Your task to perform on an android device: open the mobile data screen to see how much data has been used Image 0: 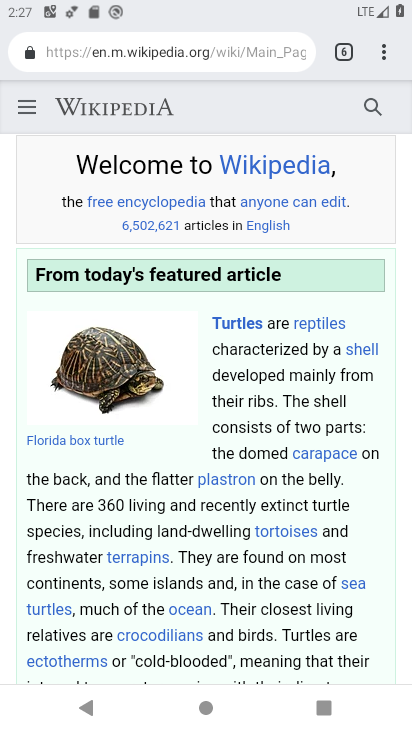
Step 0: press home button
Your task to perform on an android device: open the mobile data screen to see how much data has been used Image 1: 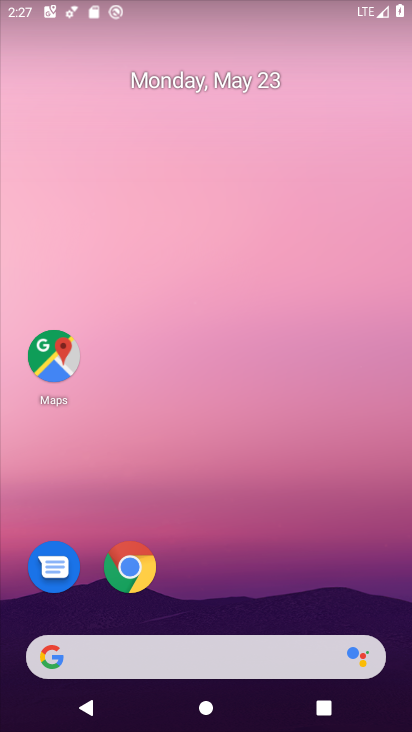
Step 1: drag from (268, 516) to (311, 153)
Your task to perform on an android device: open the mobile data screen to see how much data has been used Image 2: 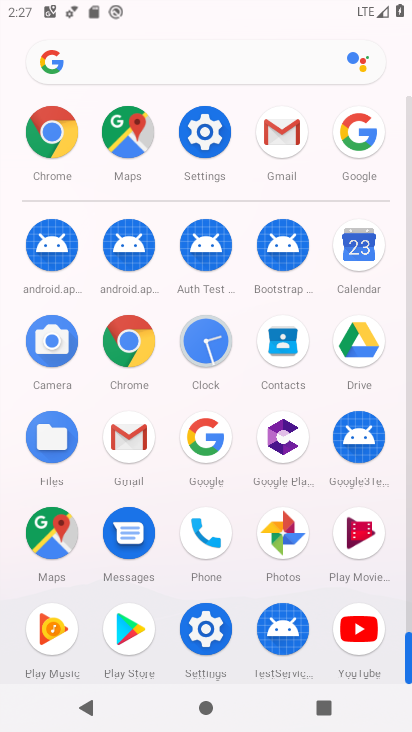
Step 2: click (219, 133)
Your task to perform on an android device: open the mobile data screen to see how much data has been used Image 3: 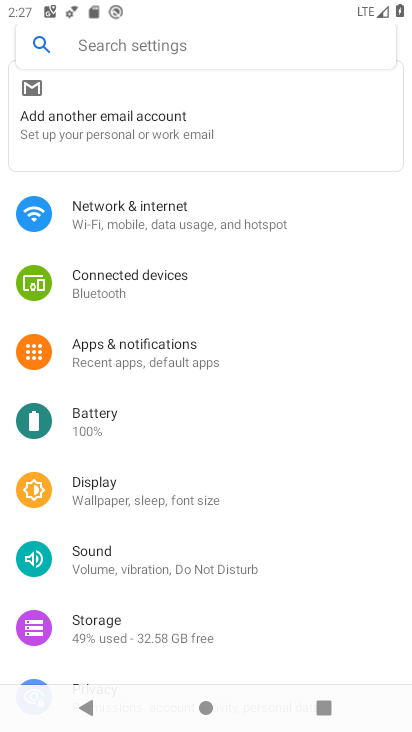
Step 3: click (197, 226)
Your task to perform on an android device: open the mobile data screen to see how much data has been used Image 4: 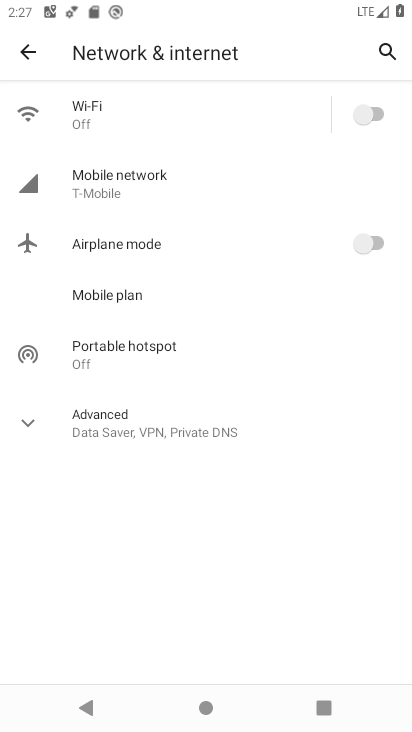
Step 4: click (134, 190)
Your task to perform on an android device: open the mobile data screen to see how much data has been used Image 5: 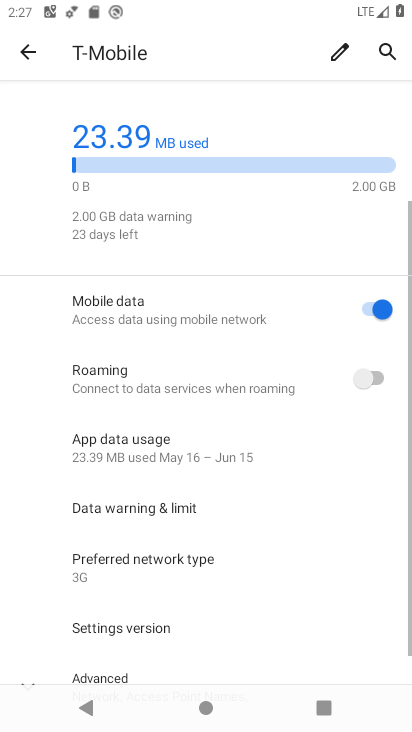
Step 5: drag from (164, 515) to (184, 372)
Your task to perform on an android device: open the mobile data screen to see how much data has been used Image 6: 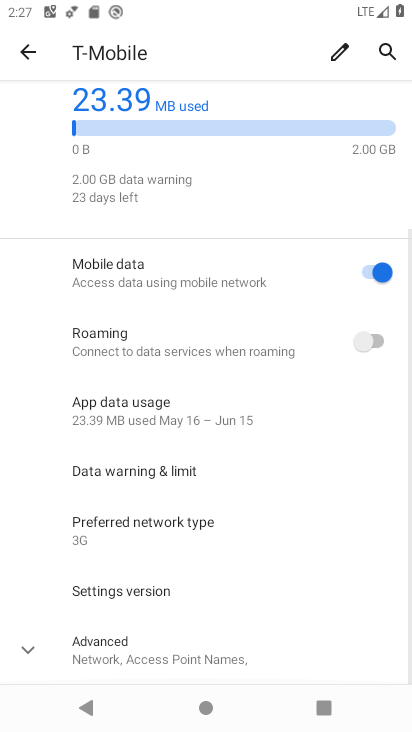
Step 6: click (167, 404)
Your task to perform on an android device: open the mobile data screen to see how much data has been used Image 7: 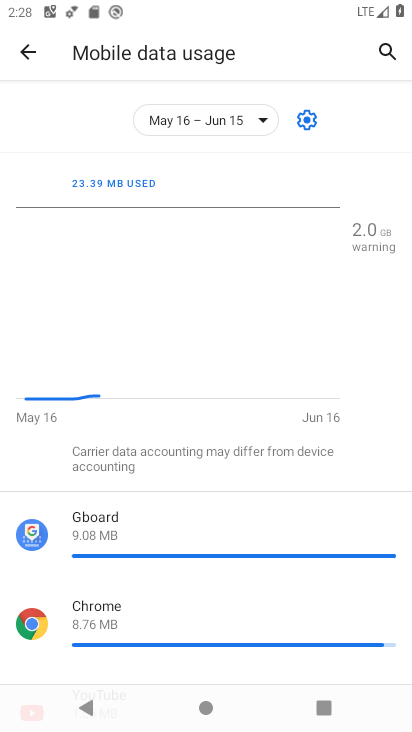
Step 7: task complete